Your task to perform on an android device: change the upload size in google photos Image 0: 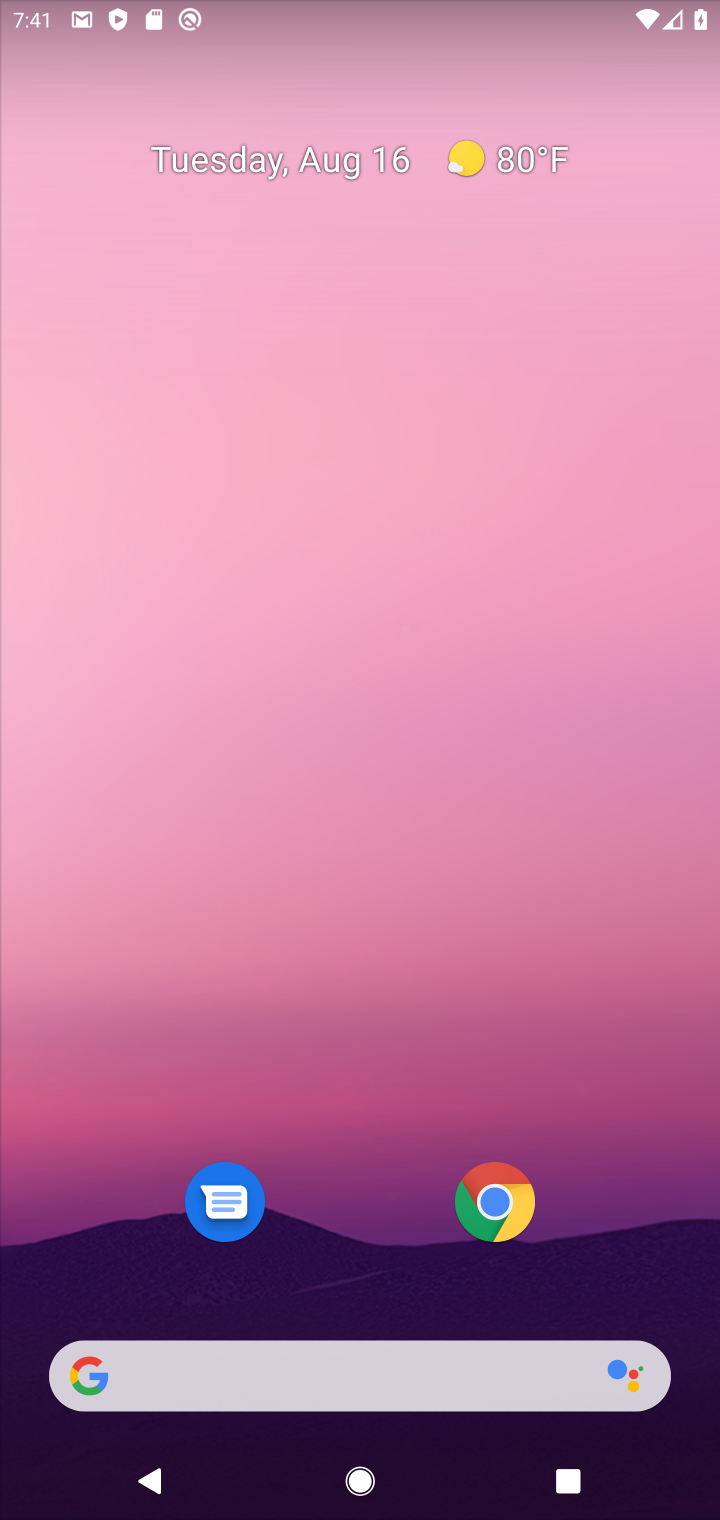
Step 0: drag from (381, 1299) to (324, 35)
Your task to perform on an android device: change the upload size in google photos Image 1: 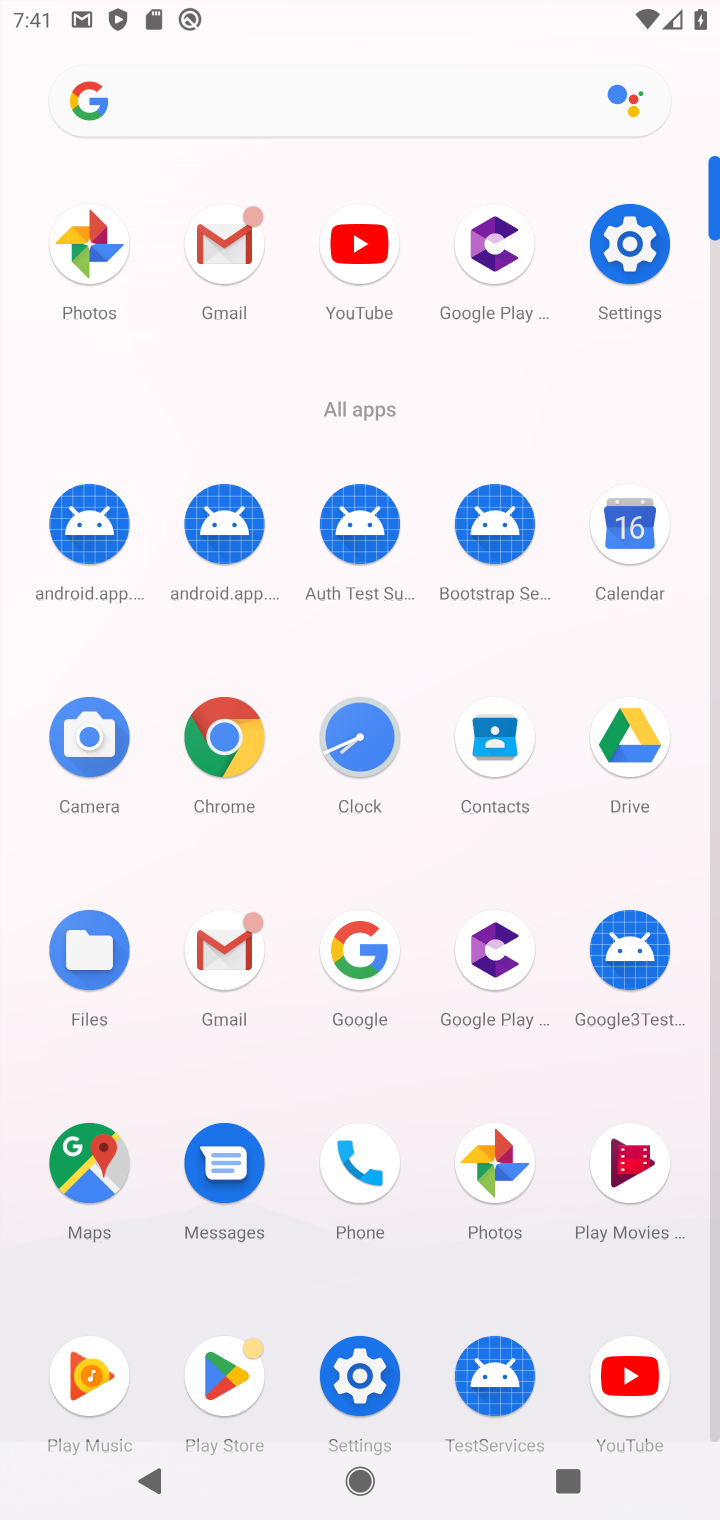
Step 1: click (501, 1192)
Your task to perform on an android device: change the upload size in google photos Image 2: 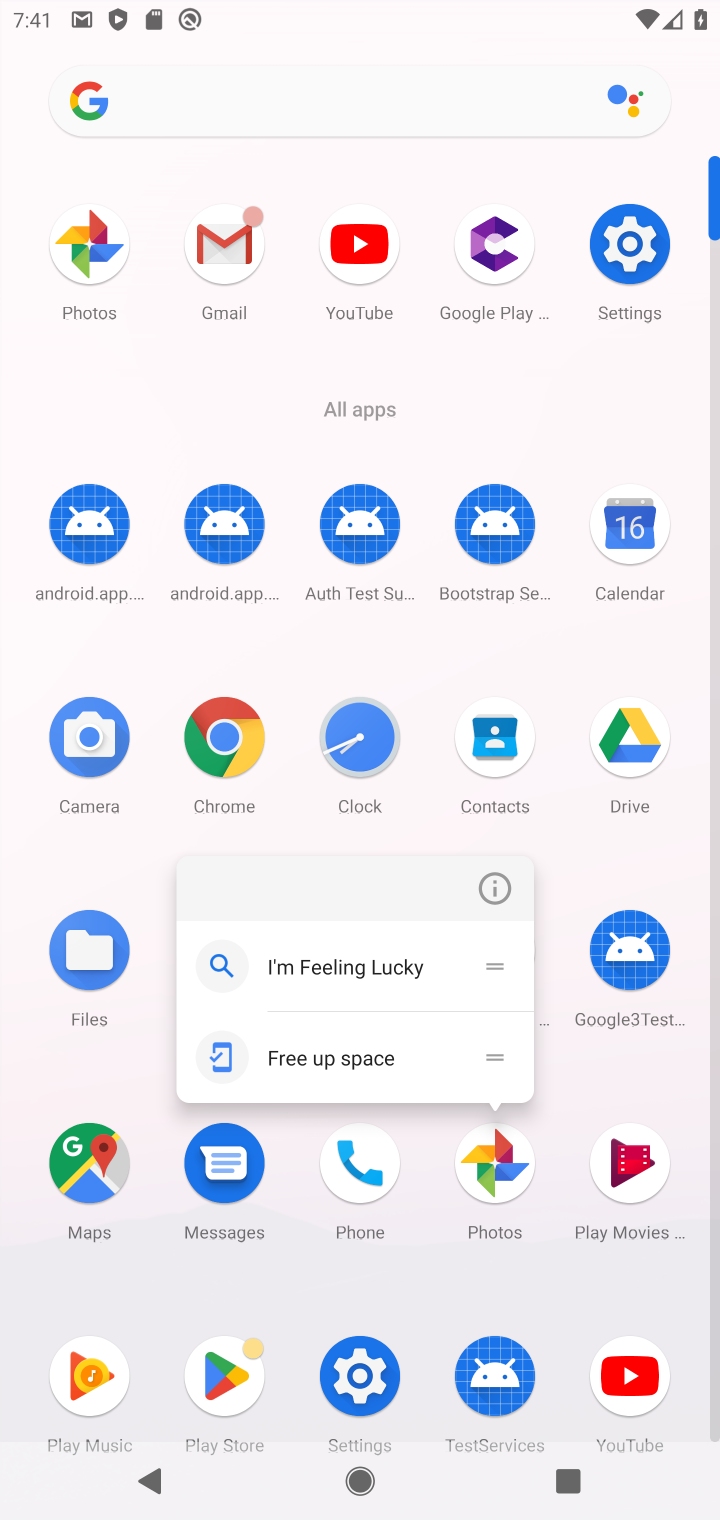
Step 2: click (501, 1192)
Your task to perform on an android device: change the upload size in google photos Image 3: 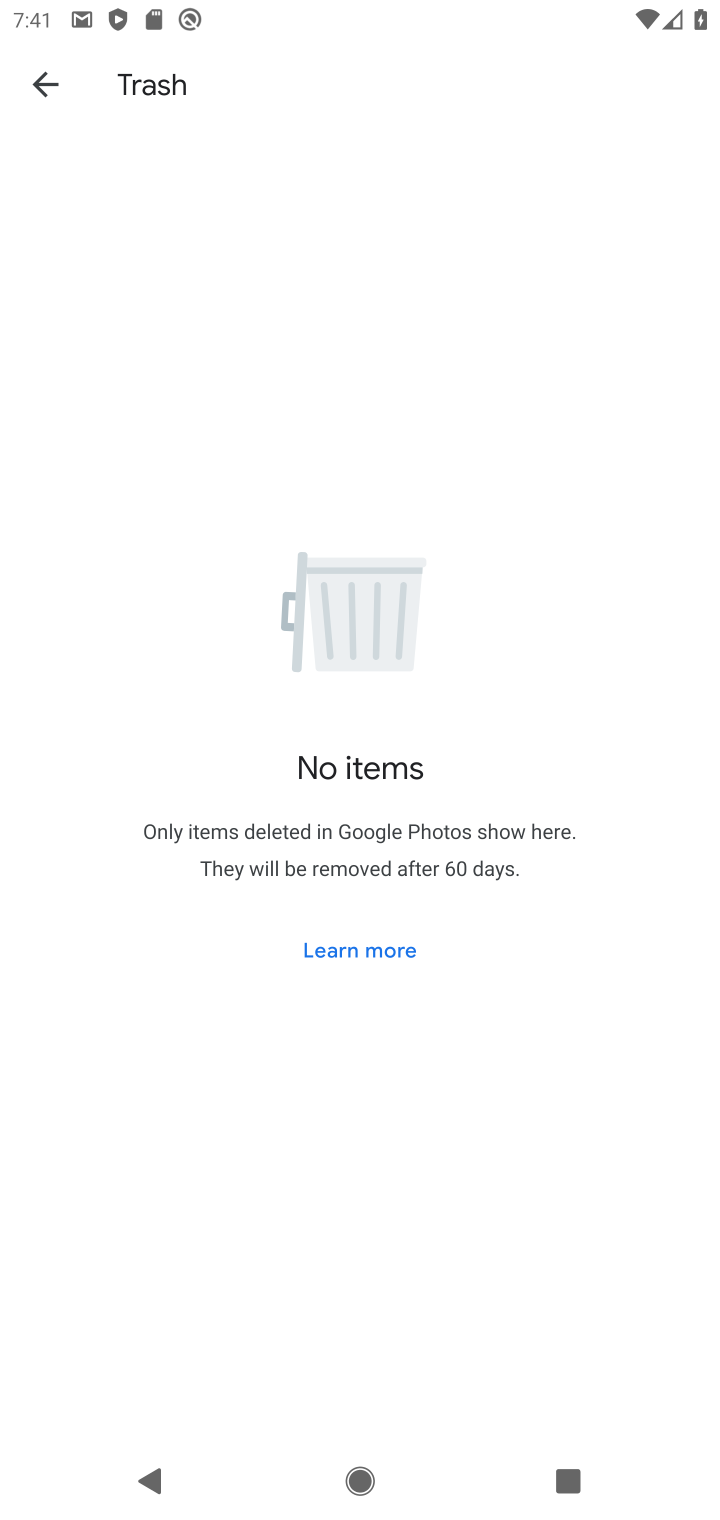
Step 3: click (54, 109)
Your task to perform on an android device: change the upload size in google photos Image 4: 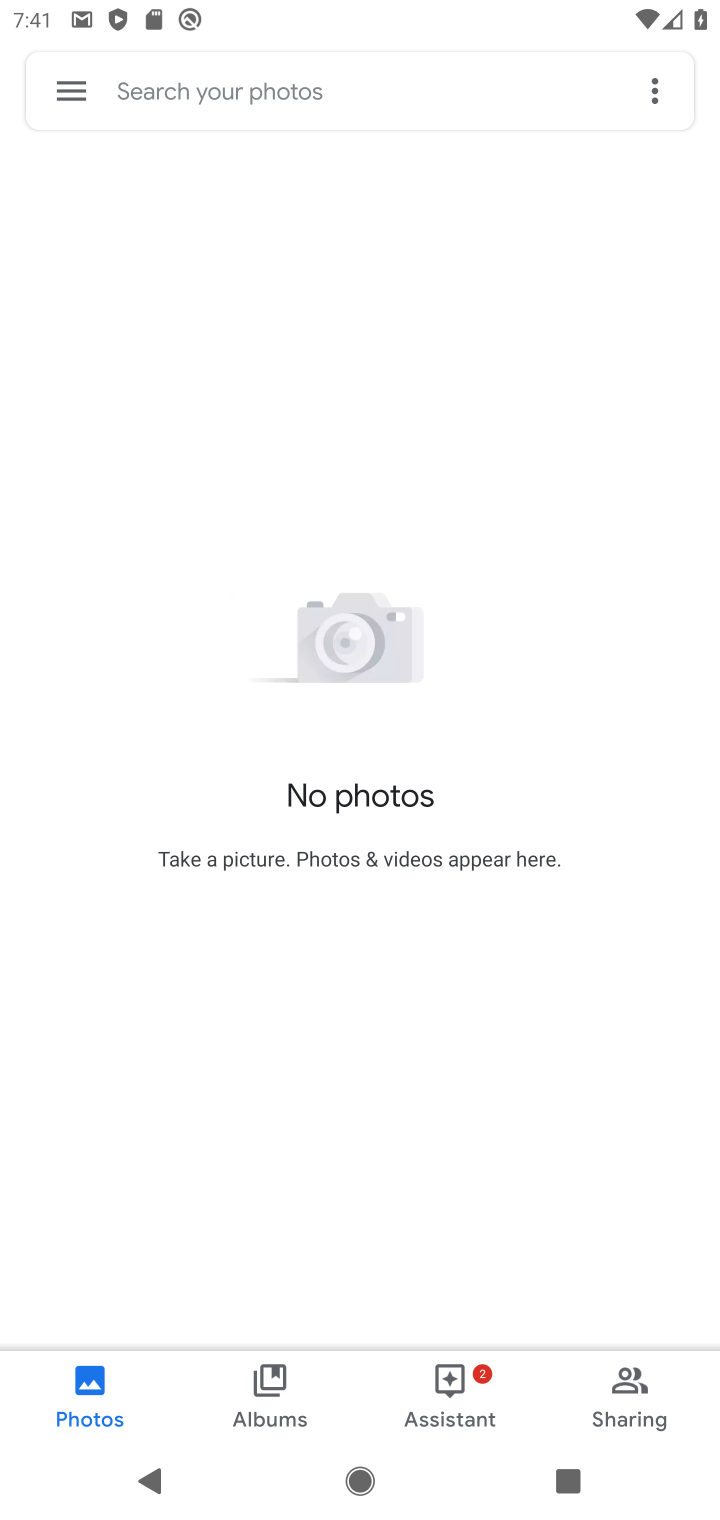
Step 4: click (54, 109)
Your task to perform on an android device: change the upload size in google photos Image 5: 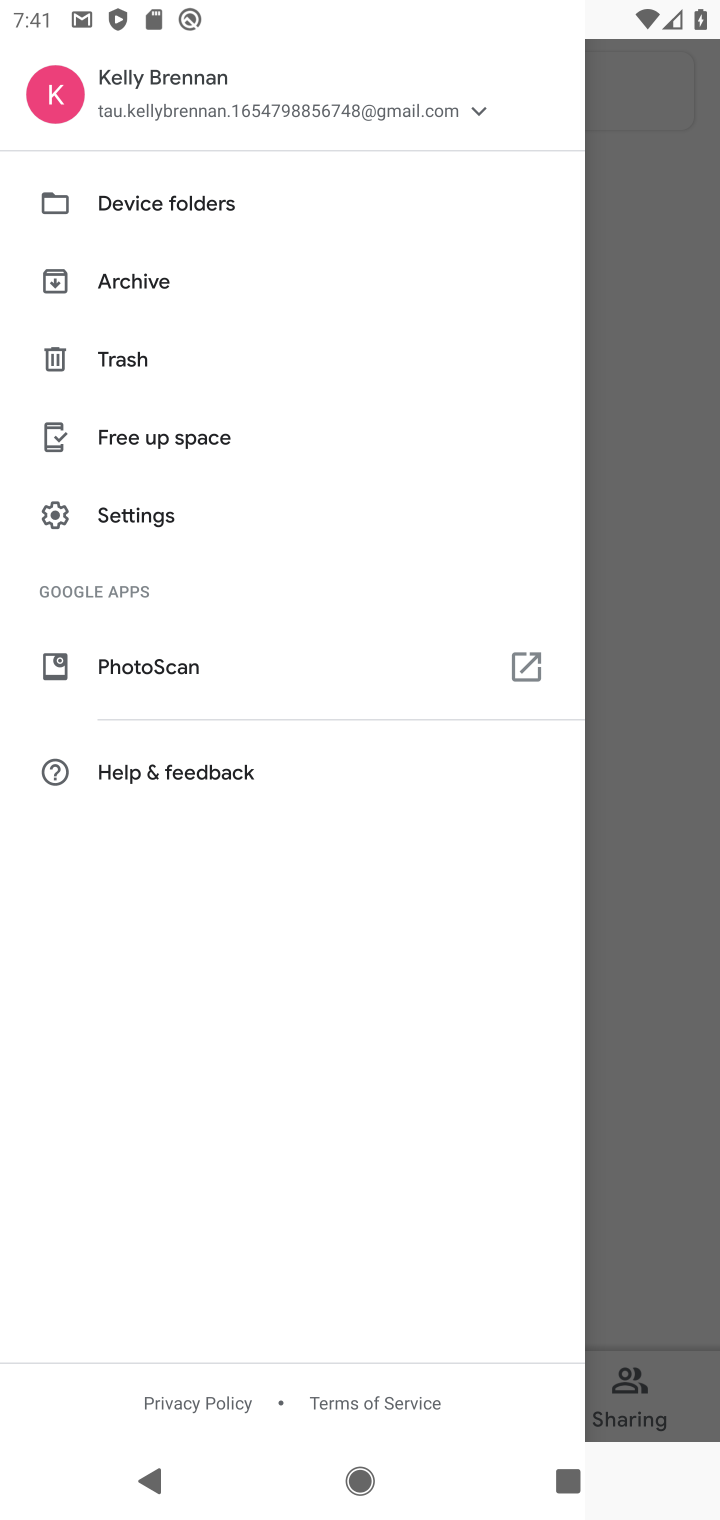
Step 5: click (81, 512)
Your task to perform on an android device: change the upload size in google photos Image 6: 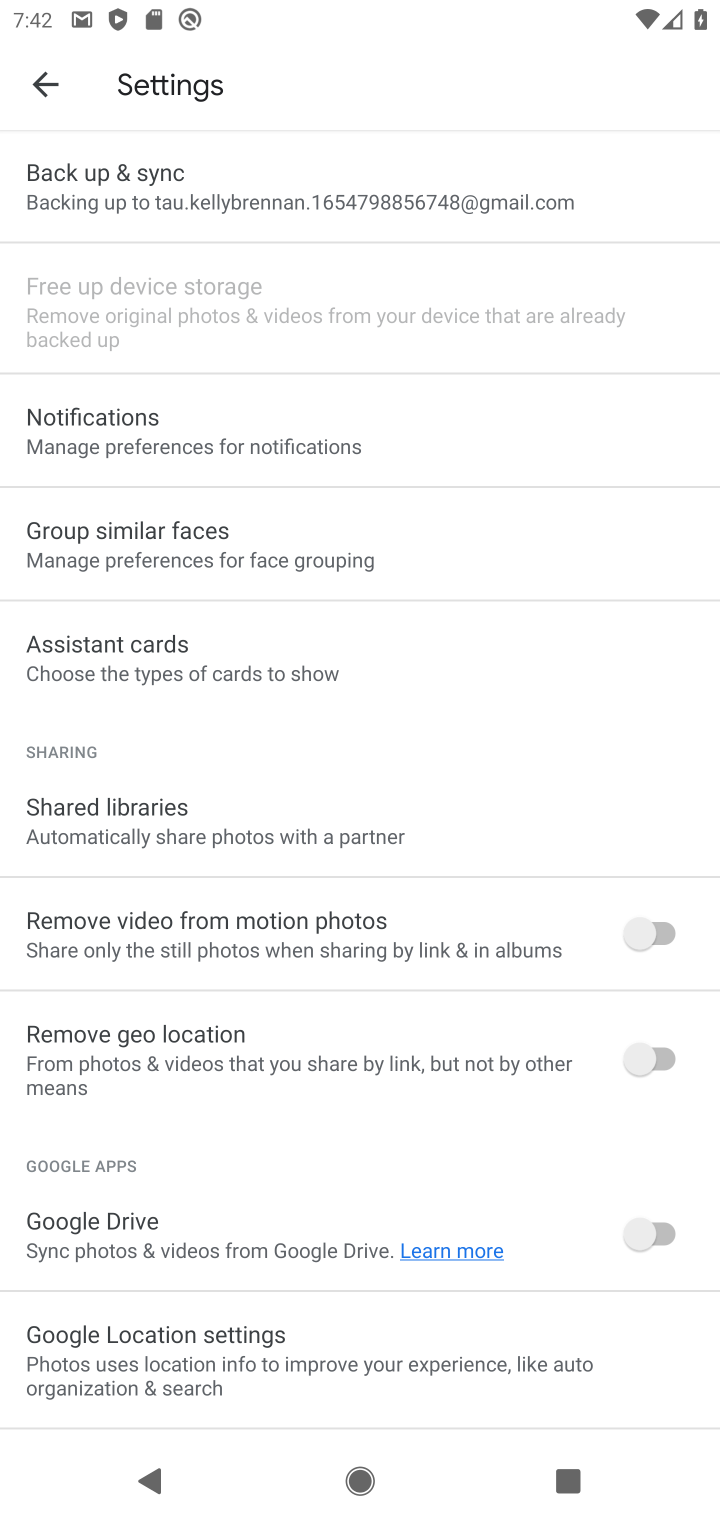
Step 6: drag from (132, 1186) to (124, 610)
Your task to perform on an android device: change the upload size in google photos Image 7: 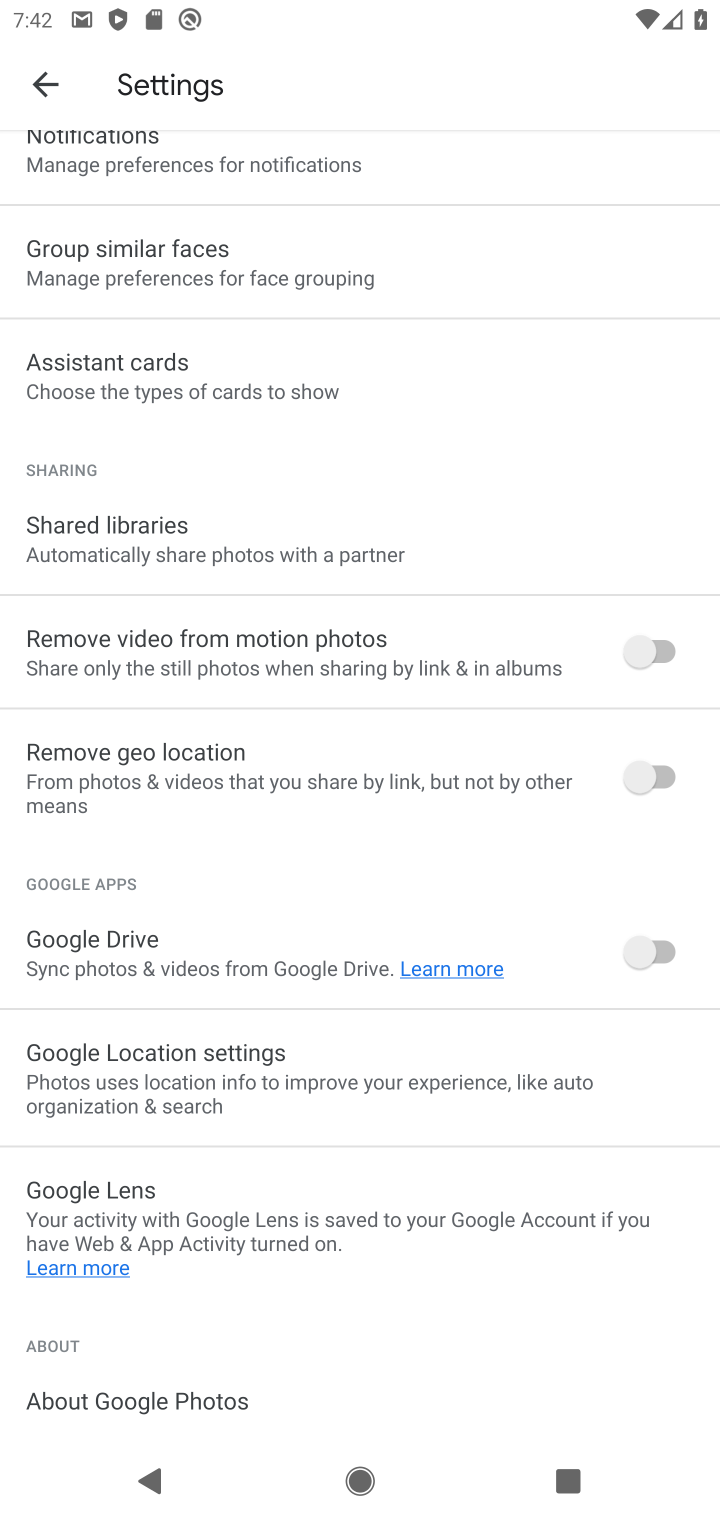
Step 7: drag from (262, 419) to (337, 1432)
Your task to perform on an android device: change the upload size in google photos Image 8: 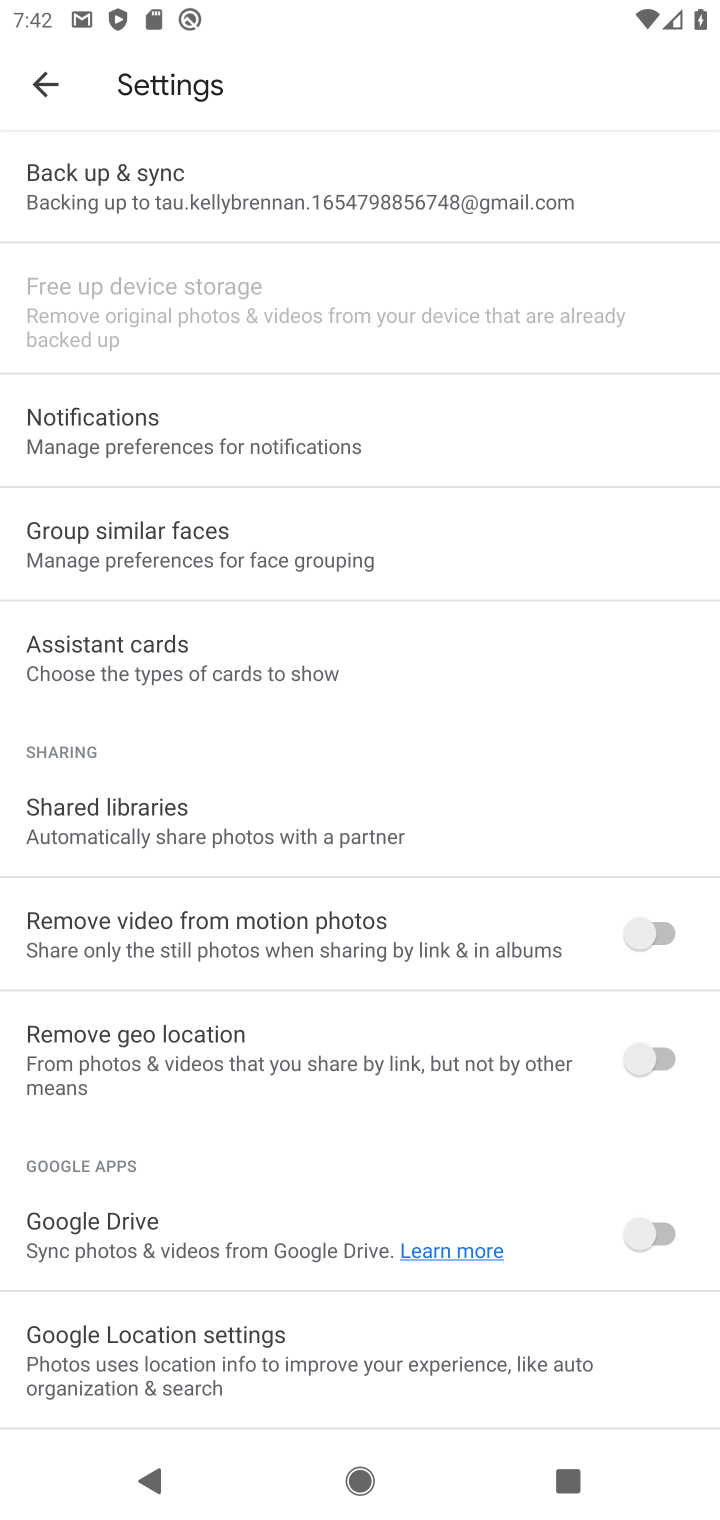
Step 8: click (222, 235)
Your task to perform on an android device: change the upload size in google photos Image 9: 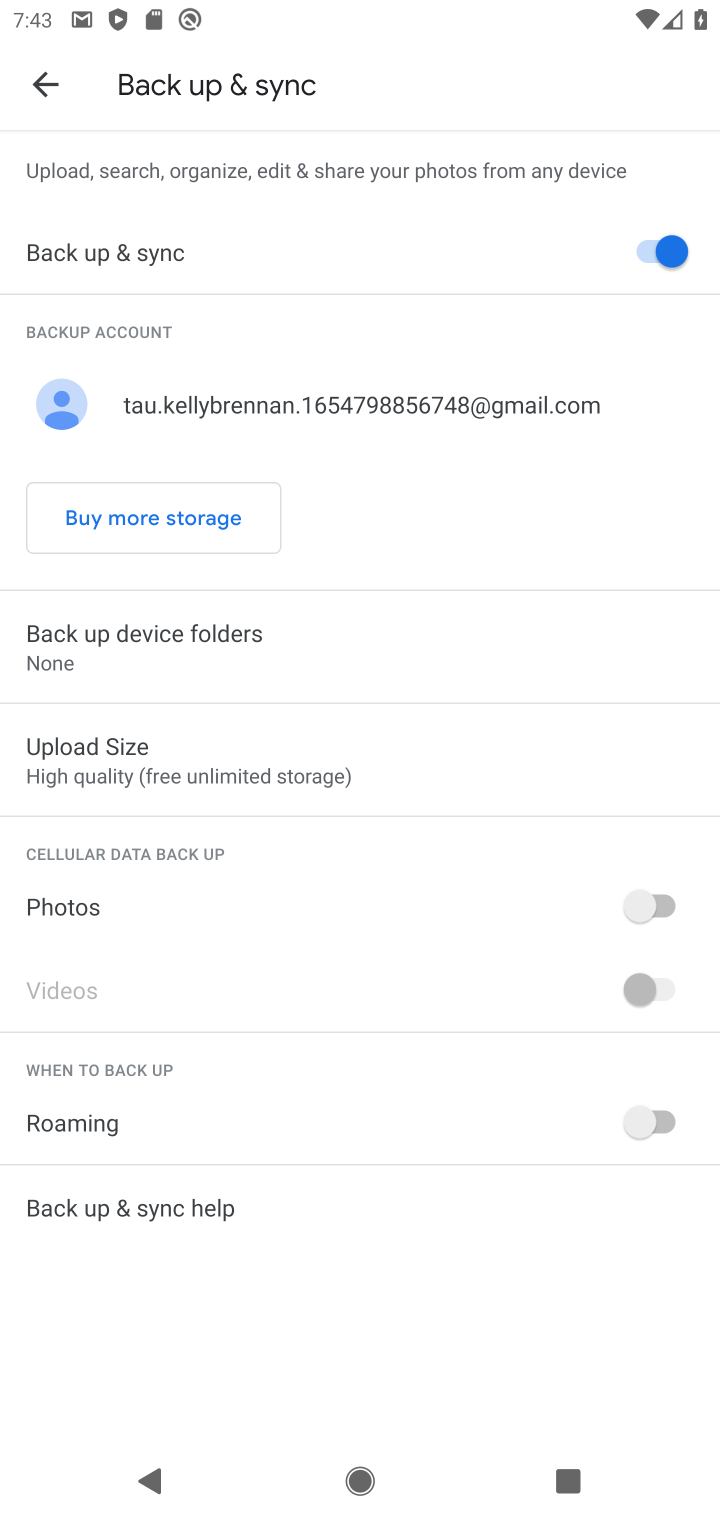
Step 9: task complete